Your task to perform on an android device: Add "logitech g903" to the cart on walmart.com Image 0: 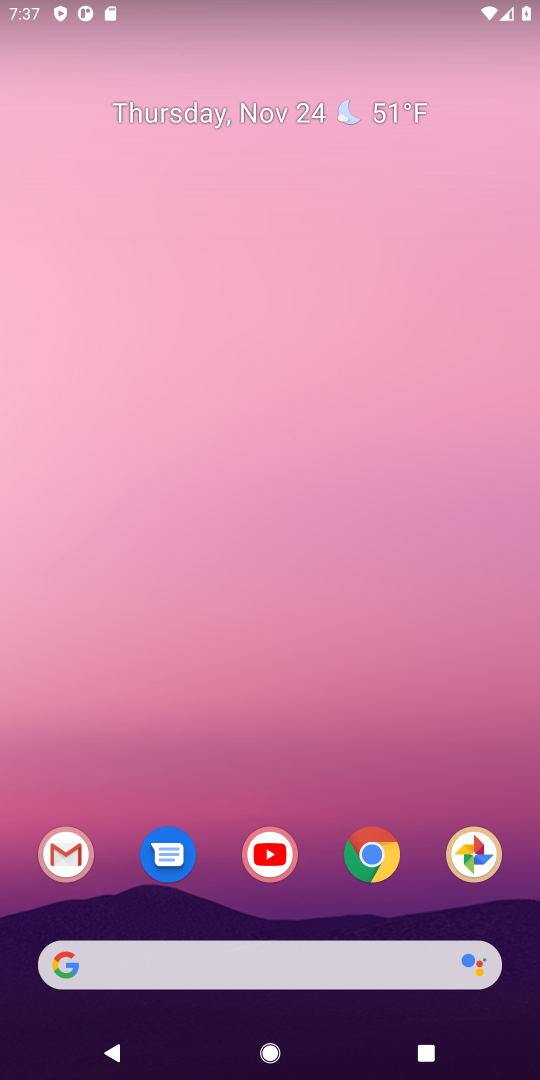
Step 0: click (379, 856)
Your task to perform on an android device: Add "logitech g903" to the cart on walmart.com Image 1: 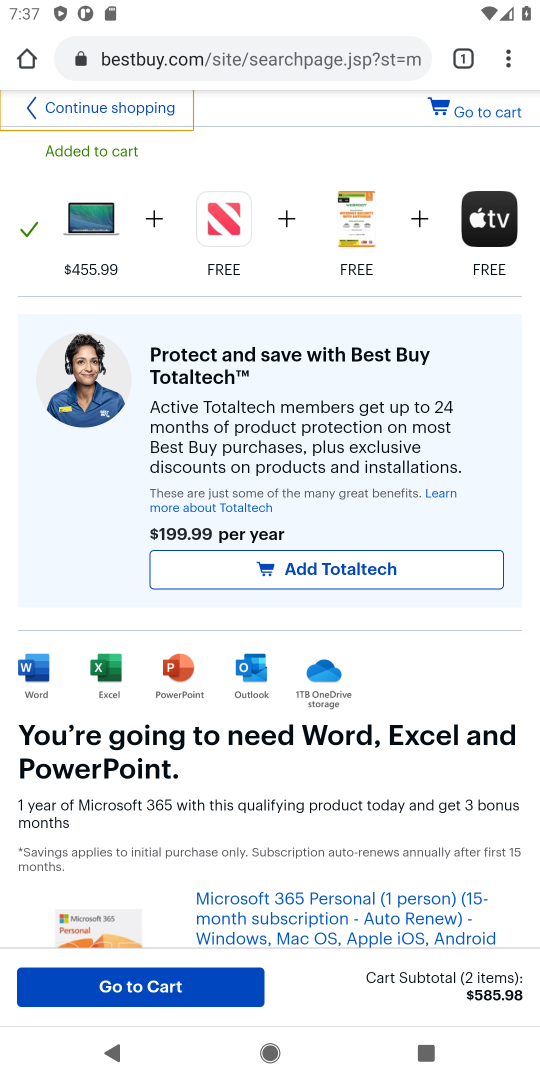
Step 1: click (183, 55)
Your task to perform on an android device: Add "logitech g903" to the cart on walmart.com Image 2: 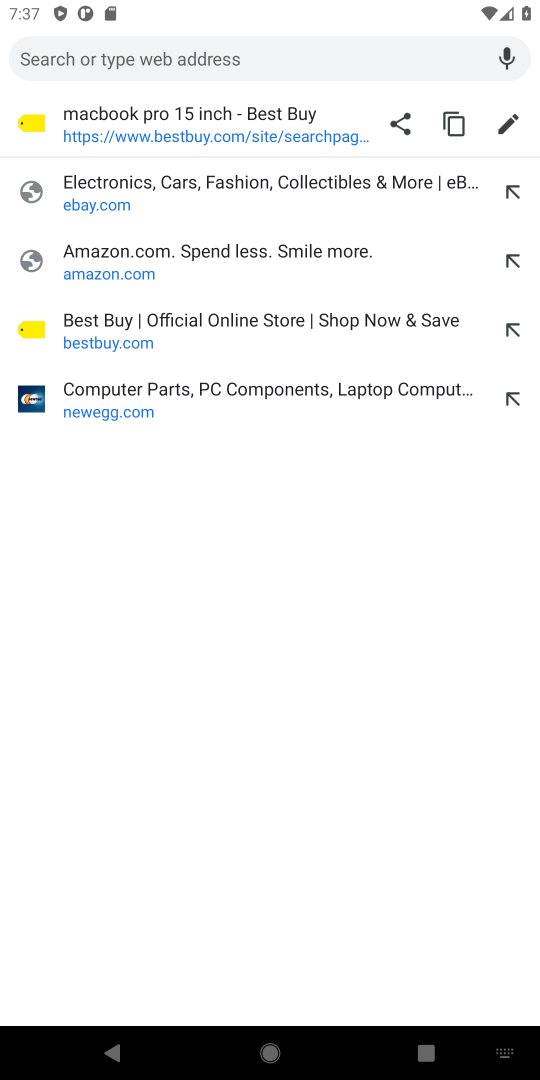
Step 2: type "walmart.com"
Your task to perform on an android device: Add "logitech g903" to the cart on walmart.com Image 3: 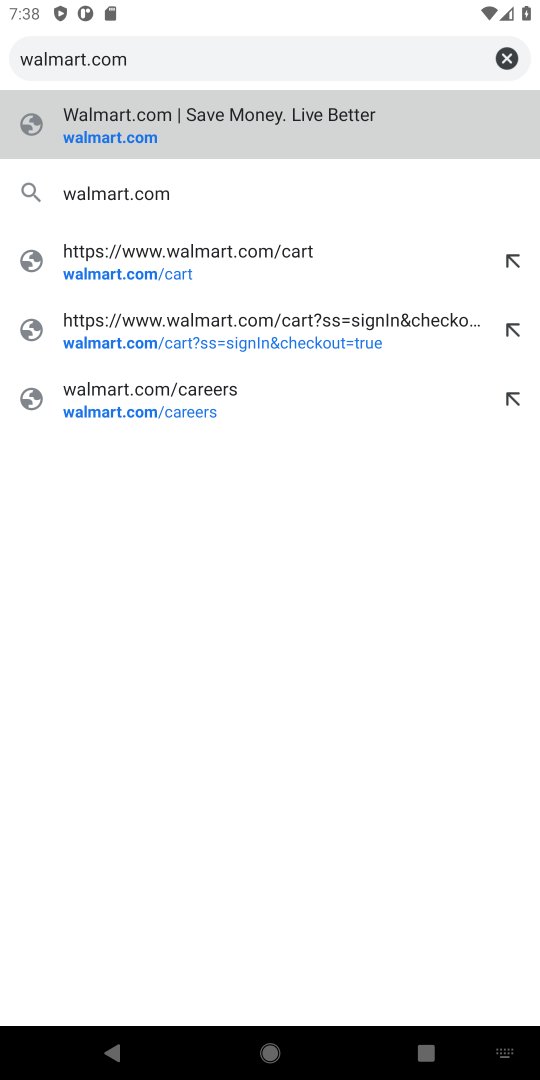
Step 3: click (115, 141)
Your task to perform on an android device: Add "logitech g903" to the cart on walmart.com Image 4: 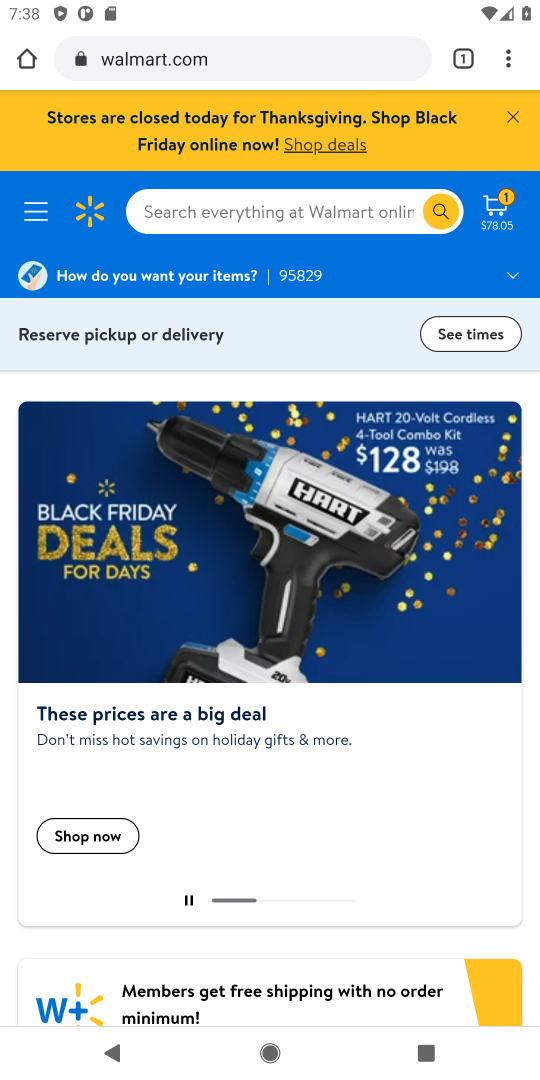
Step 4: click (219, 208)
Your task to perform on an android device: Add "logitech g903" to the cart on walmart.com Image 5: 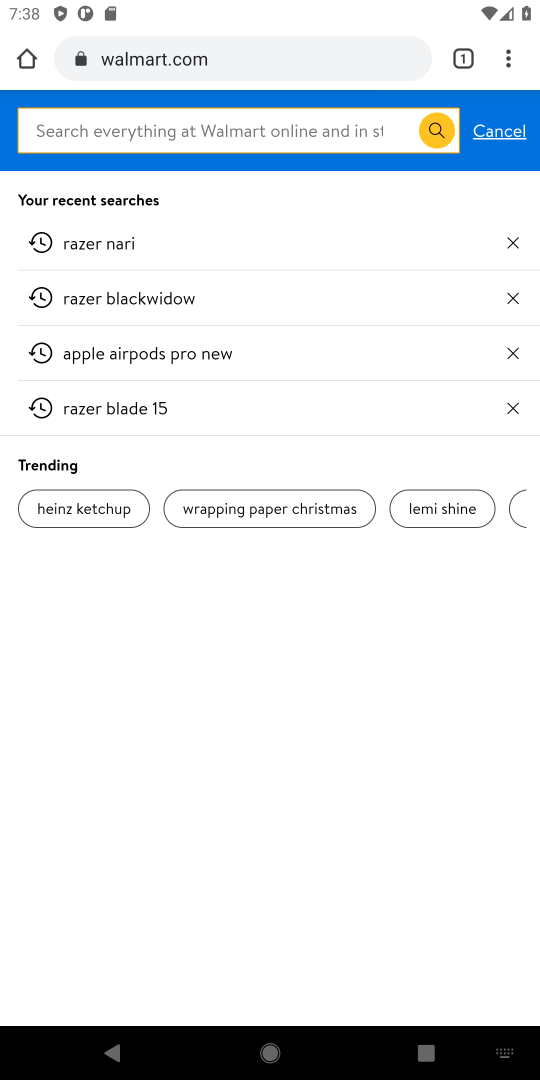
Step 5: type "logitech g903"
Your task to perform on an android device: Add "logitech g903" to the cart on walmart.com Image 6: 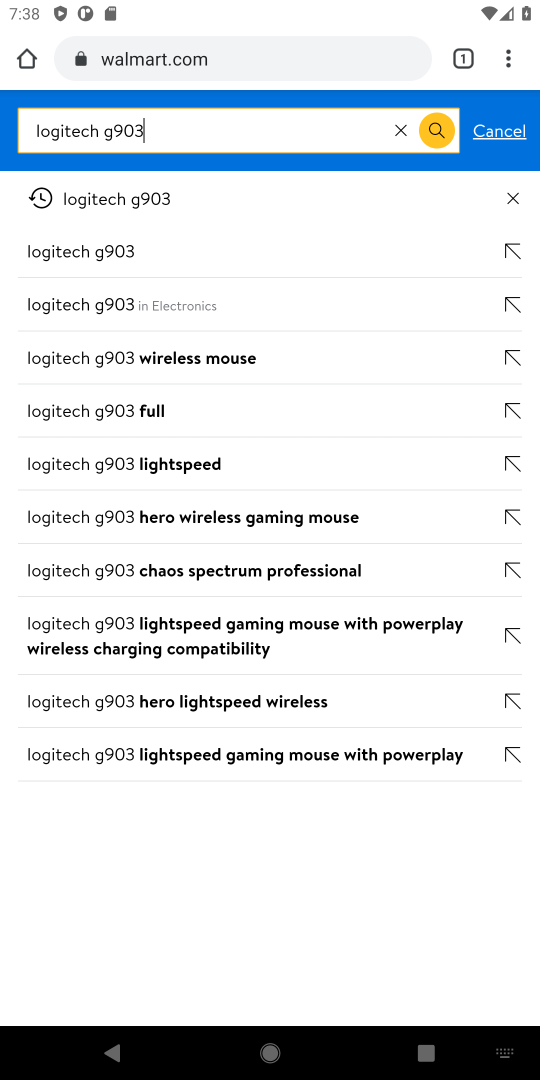
Step 6: click (126, 206)
Your task to perform on an android device: Add "logitech g903" to the cart on walmart.com Image 7: 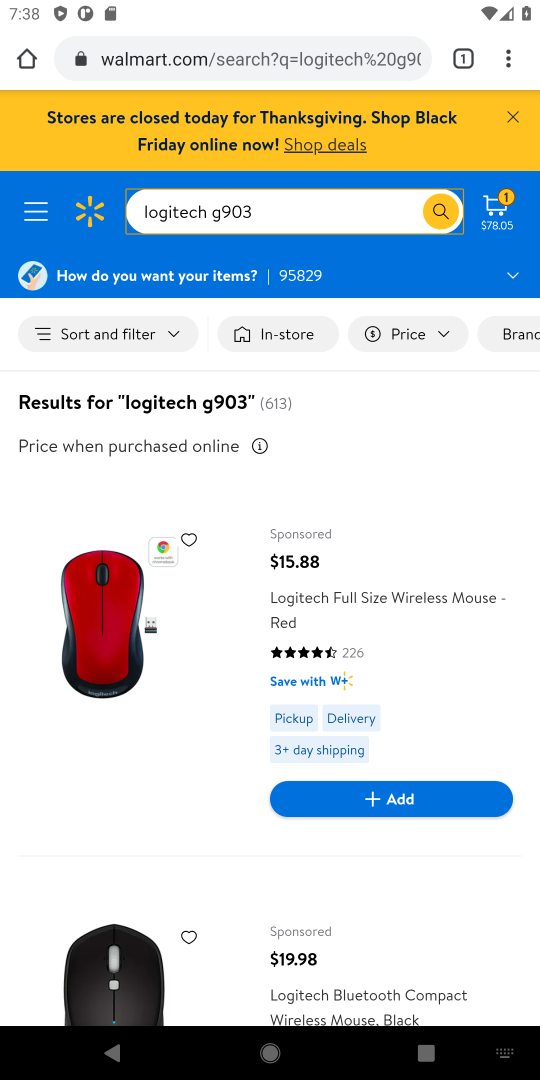
Step 7: drag from (112, 669) to (131, 376)
Your task to perform on an android device: Add "logitech g903" to the cart on walmart.com Image 8: 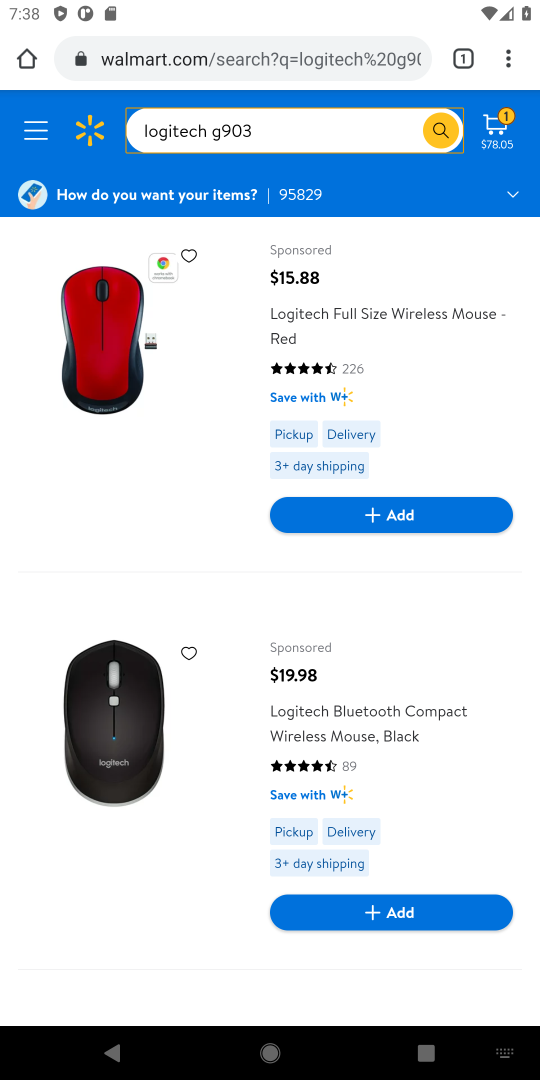
Step 8: drag from (151, 730) to (160, 384)
Your task to perform on an android device: Add "logitech g903" to the cart on walmart.com Image 9: 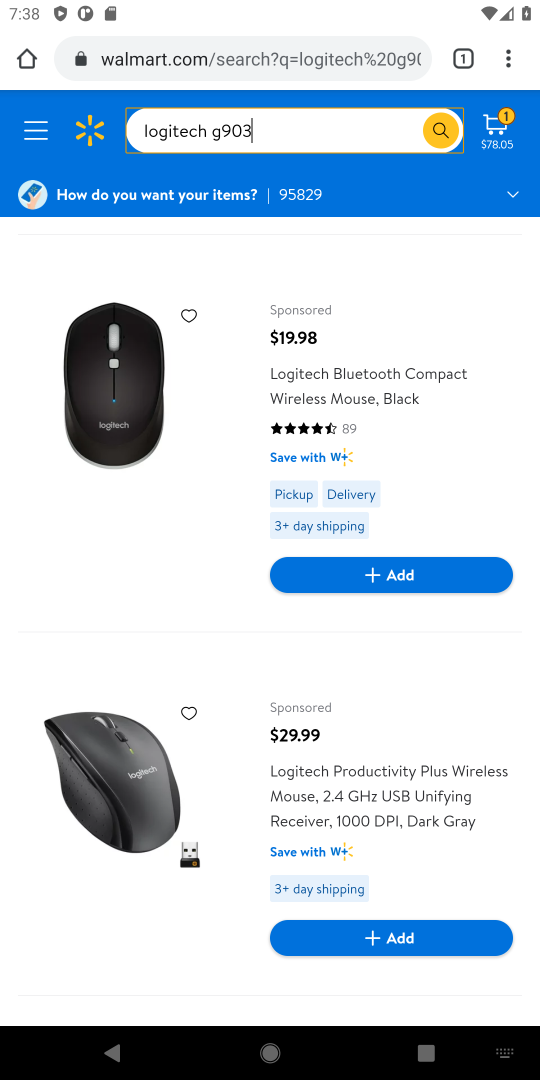
Step 9: drag from (144, 713) to (146, 434)
Your task to perform on an android device: Add "logitech g903" to the cart on walmart.com Image 10: 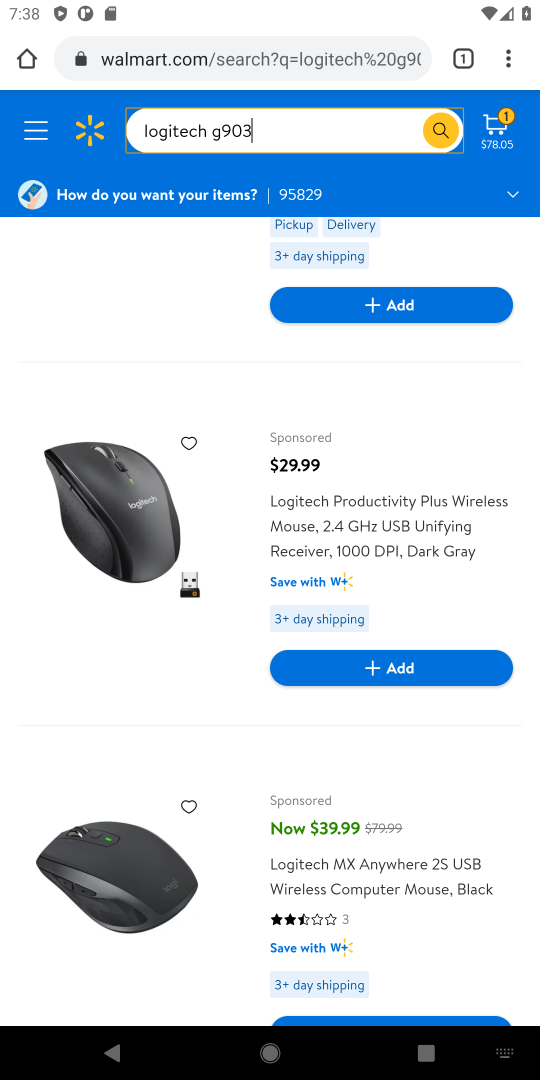
Step 10: drag from (109, 770) to (102, 334)
Your task to perform on an android device: Add "logitech g903" to the cart on walmart.com Image 11: 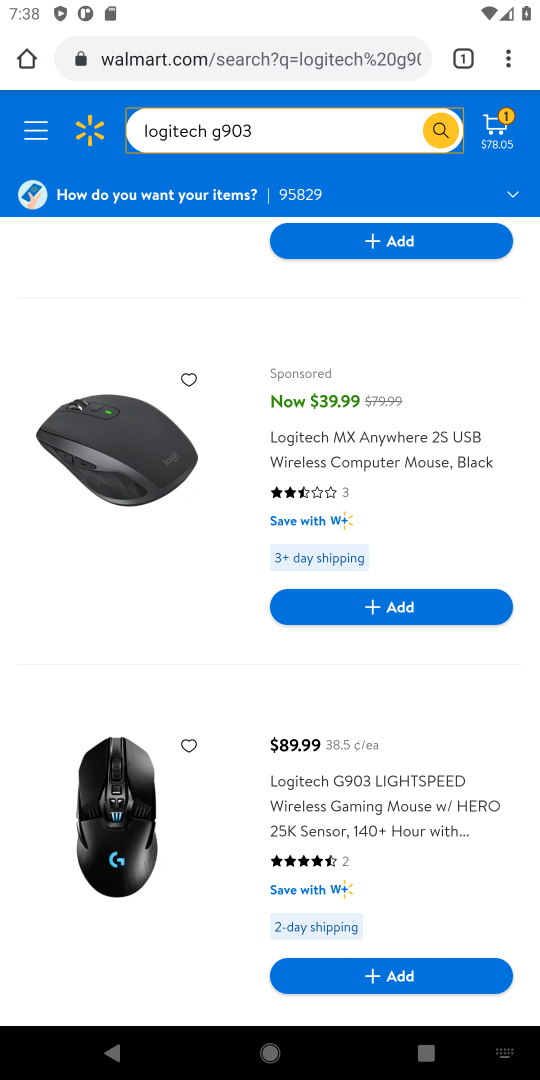
Step 11: drag from (110, 724) to (94, 420)
Your task to perform on an android device: Add "logitech g903" to the cart on walmart.com Image 12: 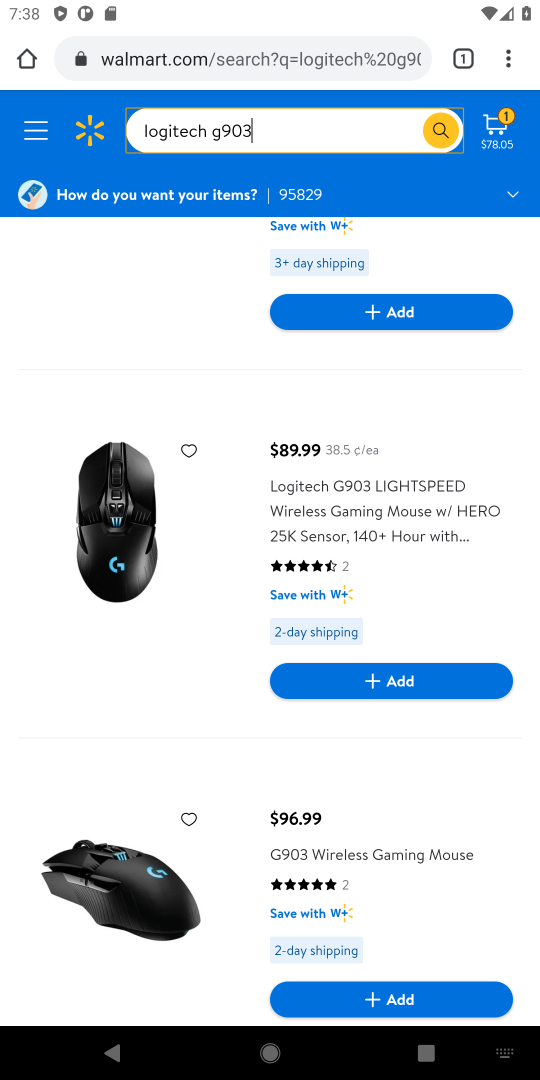
Step 12: click (395, 690)
Your task to perform on an android device: Add "logitech g903" to the cart on walmart.com Image 13: 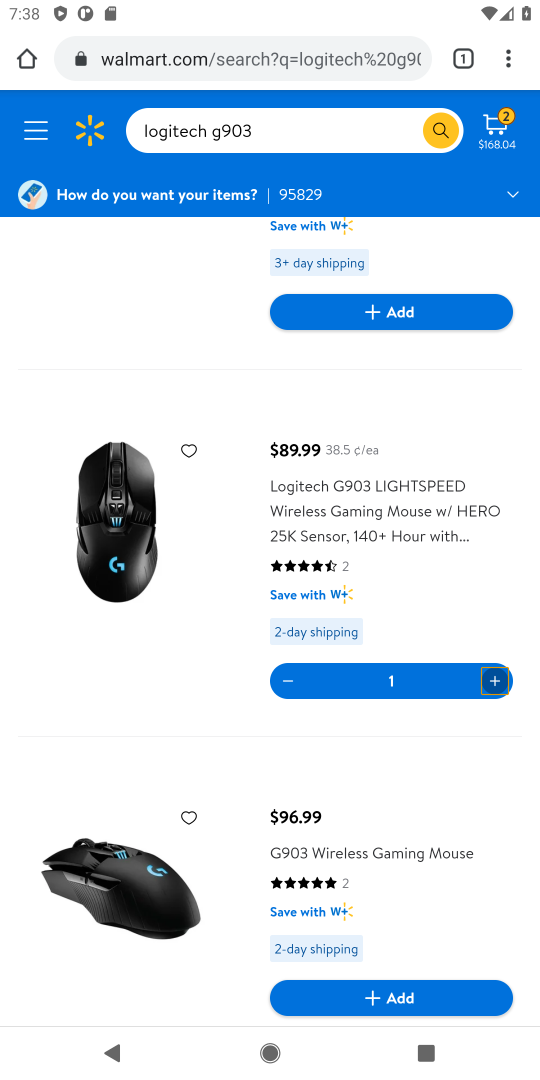
Step 13: task complete